Your task to perform on an android device: check storage Image 0: 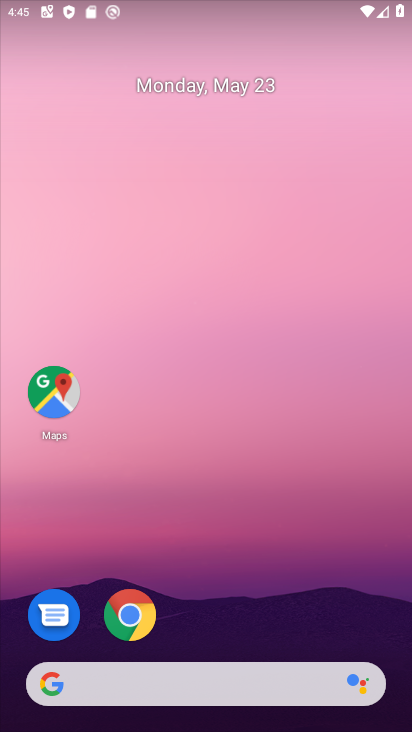
Step 0: drag from (268, 568) to (352, 18)
Your task to perform on an android device: check storage Image 1: 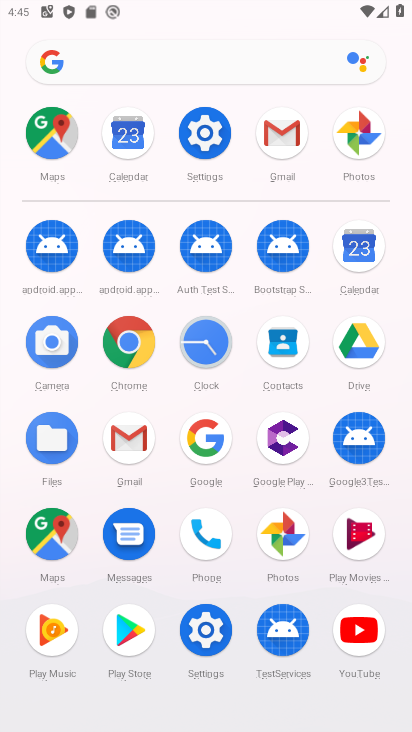
Step 1: click (213, 122)
Your task to perform on an android device: check storage Image 2: 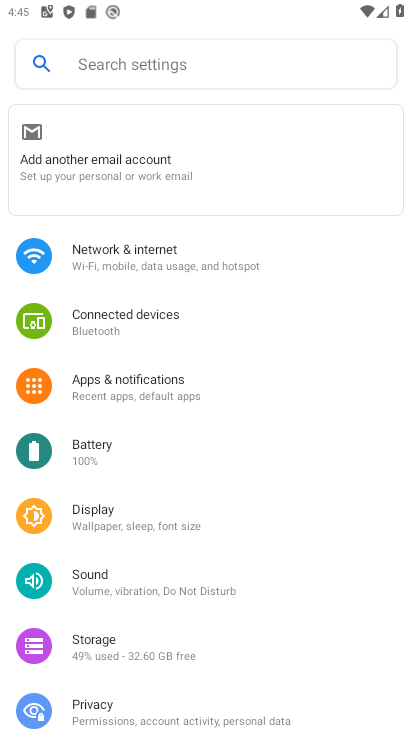
Step 2: click (105, 631)
Your task to perform on an android device: check storage Image 3: 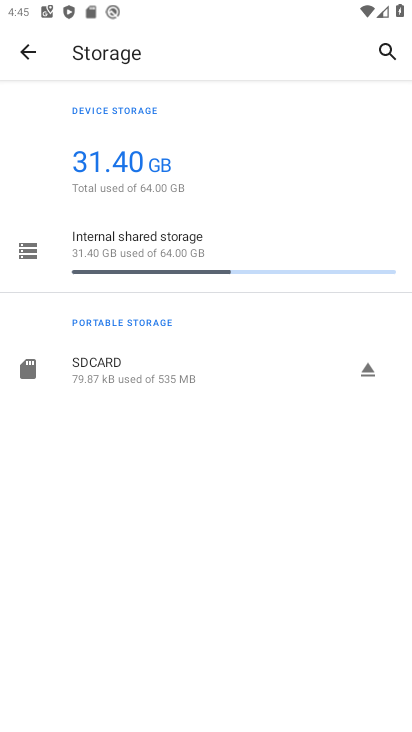
Step 3: task complete